Your task to perform on an android device: show emergency info Image 0: 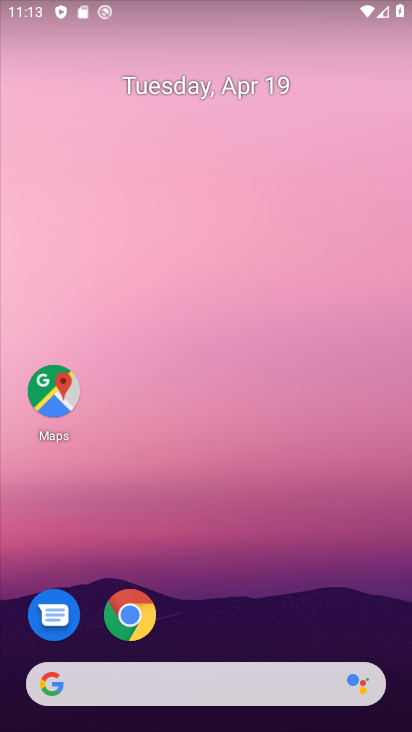
Step 0: drag from (223, 634) to (237, 168)
Your task to perform on an android device: show emergency info Image 1: 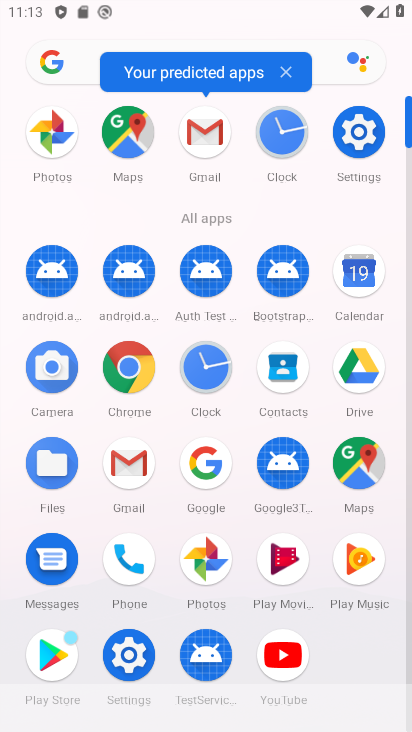
Step 1: click (365, 125)
Your task to perform on an android device: show emergency info Image 2: 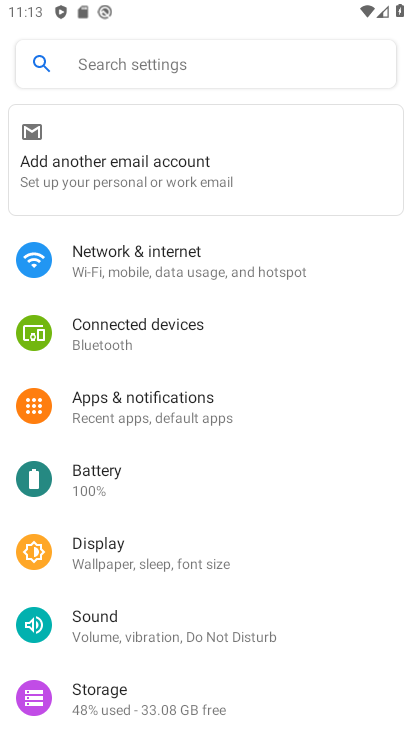
Step 2: drag from (168, 575) to (237, 158)
Your task to perform on an android device: show emergency info Image 3: 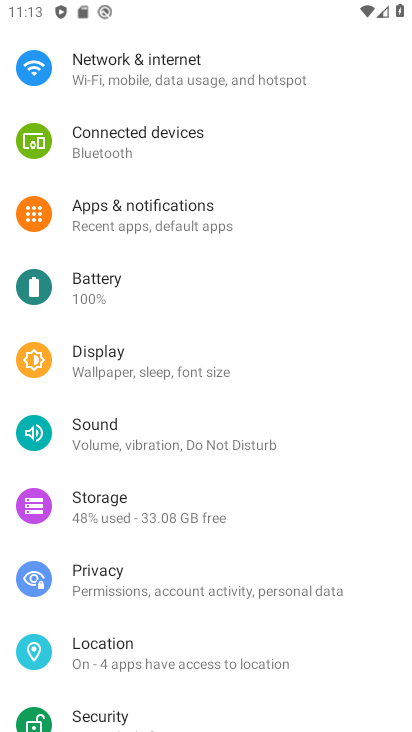
Step 3: drag from (182, 533) to (183, 67)
Your task to perform on an android device: show emergency info Image 4: 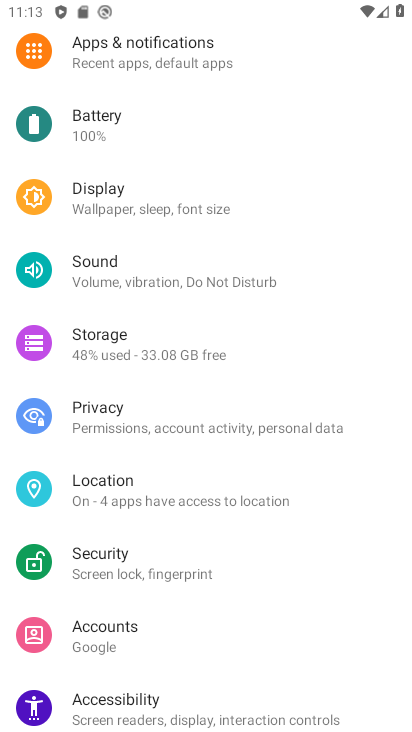
Step 4: drag from (192, 571) to (238, 14)
Your task to perform on an android device: show emergency info Image 5: 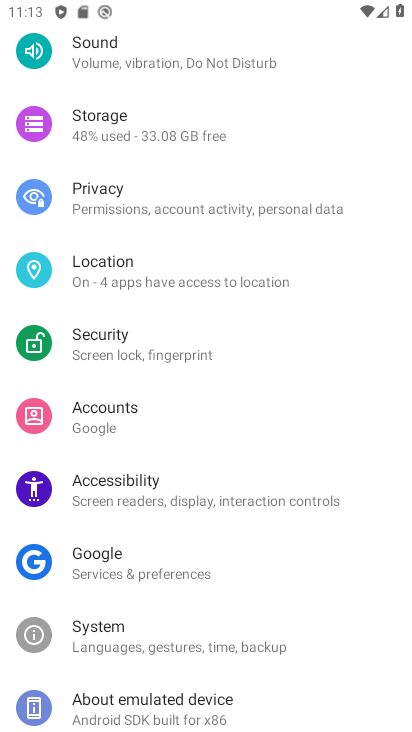
Step 5: click (193, 687)
Your task to perform on an android device: show emergency info Image 6: 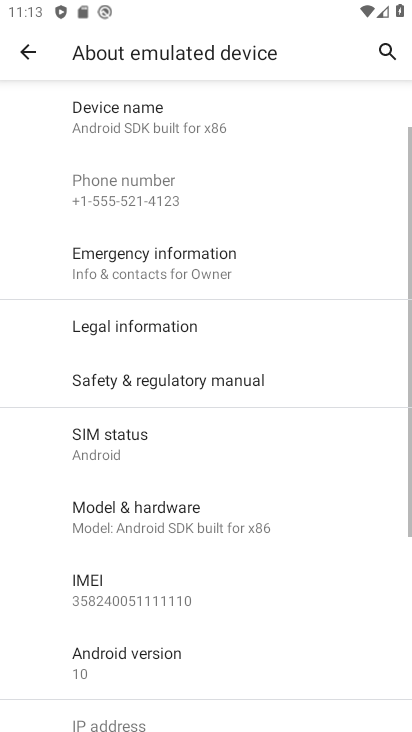
Step 6: click (202, 273)
Your task to perform on an android device: show emergency info Image 7: 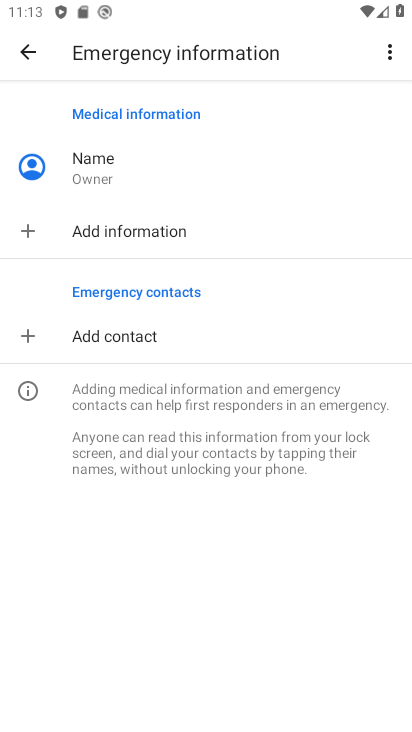
Step 7: task complete